Your task to perform on an android device: Go to settings Image 0: 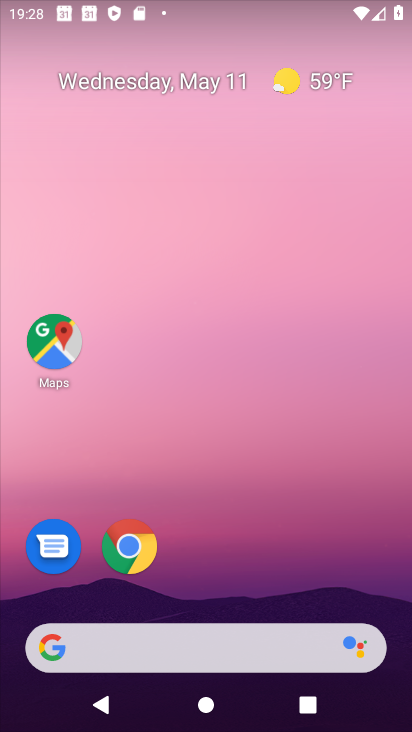
Step 0: drag from (225, 568) to (214, 203)
Your task to perform on an android device: Go to settings Image 1: 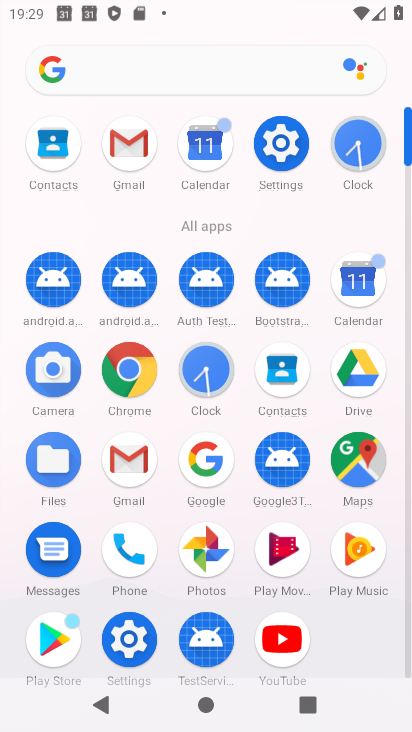
Step 1: click (280, 153)
Your task to perform on an android device: Go to settings Image 2: 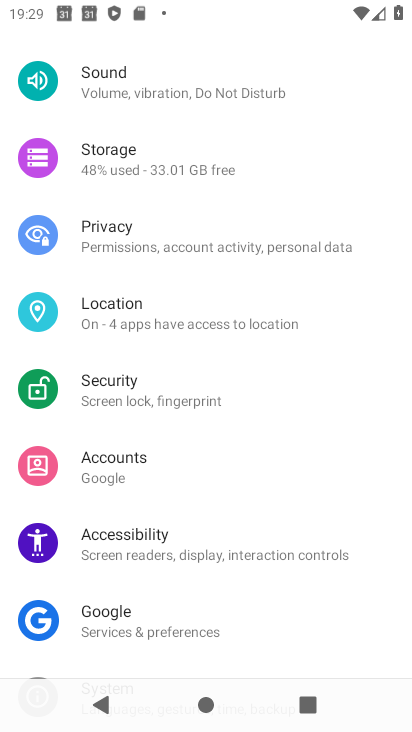
Step 2: task complete